Your task to perform on an android device: Open accessibility settings Image 0: 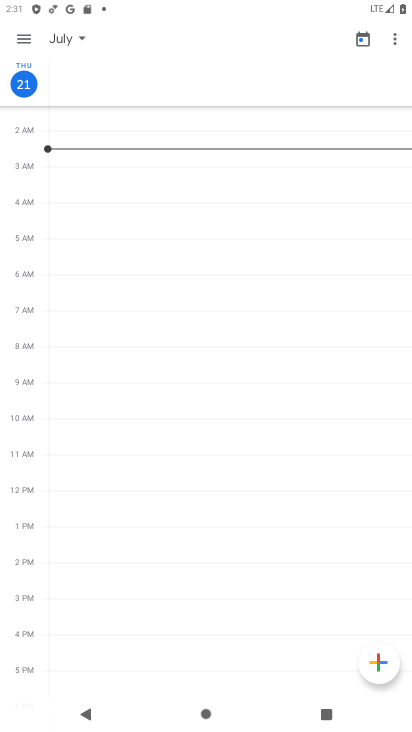
Step 0: press home button
Your task to perform on an android device: Open accessibility settings Image 1: 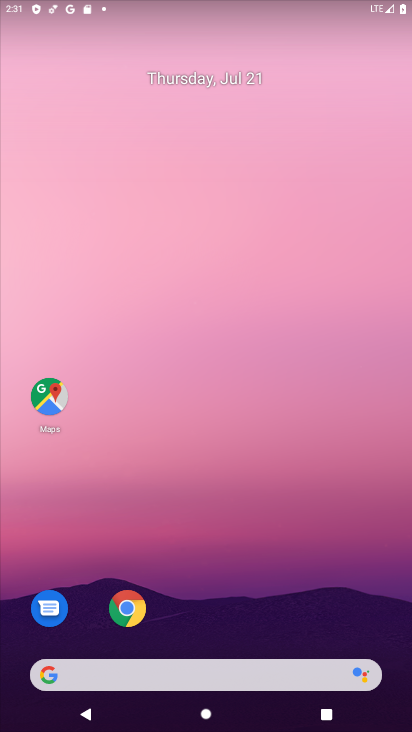
Step 1: drag from (199, 642) to (208, 12)
Your task to perform on an android device: Open accessibility settings Image 2: 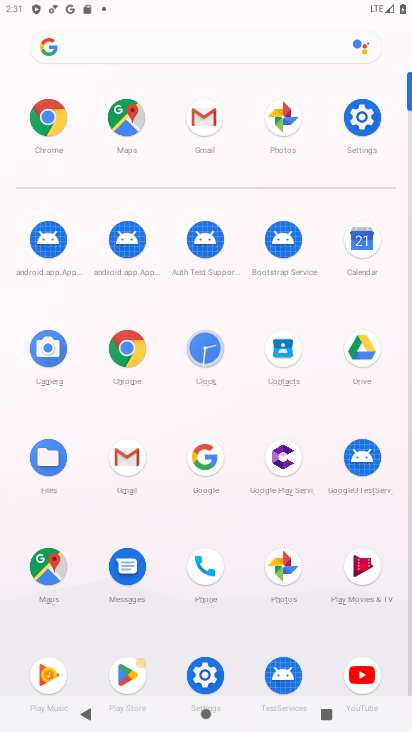
Step 2: click (363, 129)
Your task to perform on an android device: Open accessibility settings Image 3: 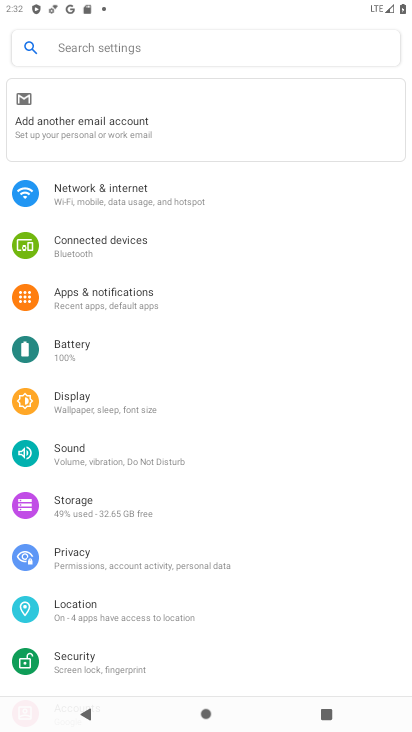
Step 3: drag from (236, 518) to (206, 13)
Your task to perform on an android device: Open accessibility settings Image 4: 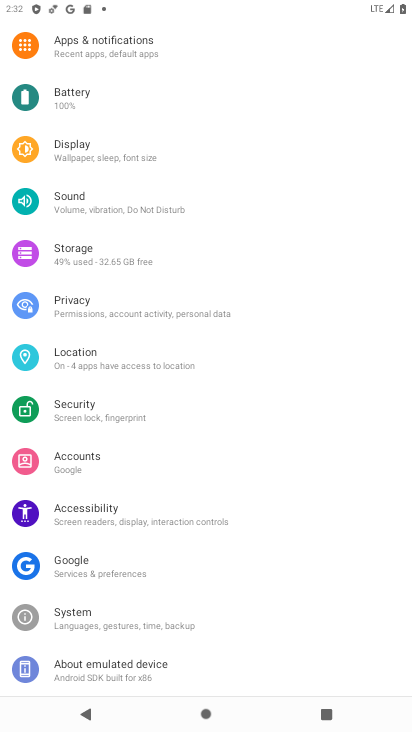
Step 4: click (93, 523)
Your task to perform on an android device: Open accessibility settings Image 5: 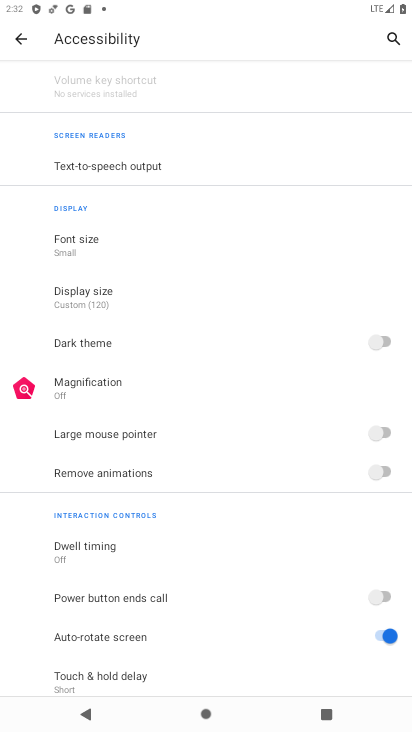
Step 5: task complete